Your task to perform on an android device: toggle priority inbox in the gmail app Image 0: 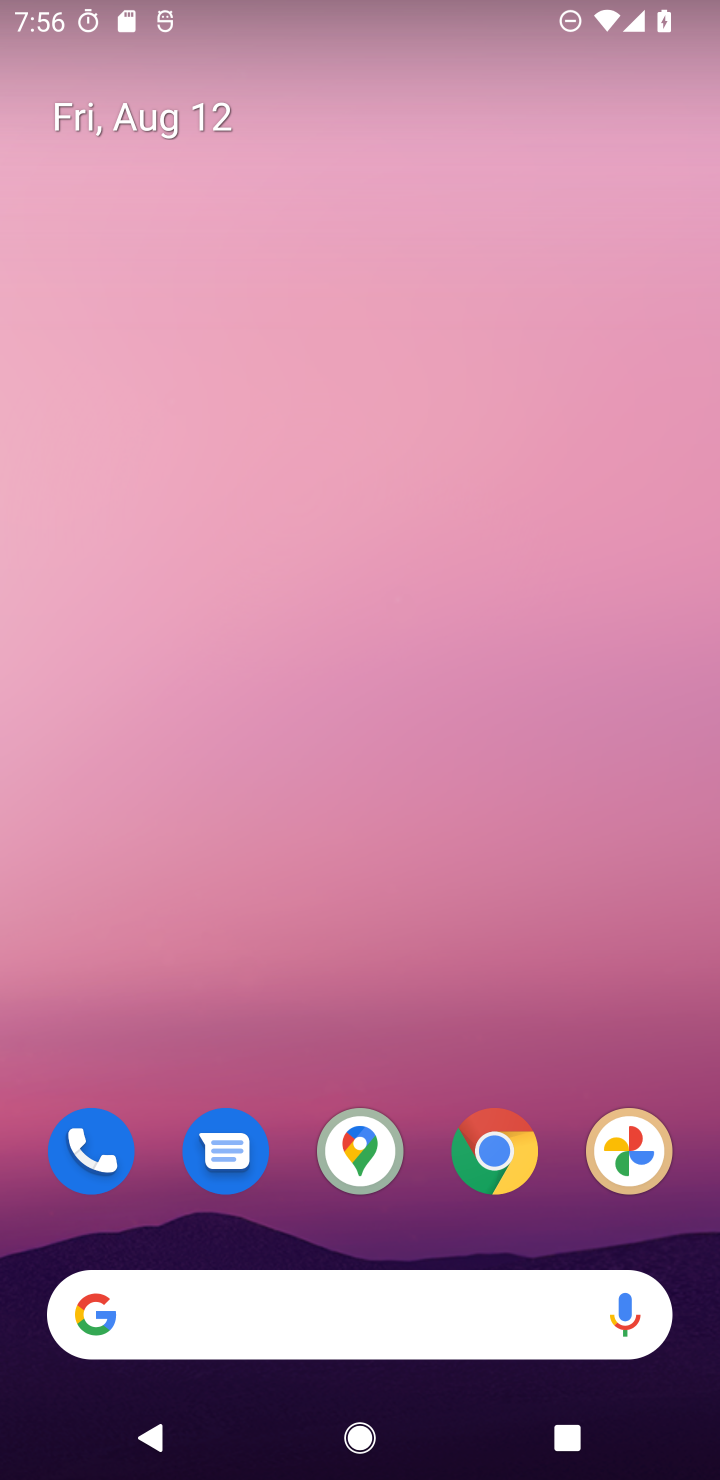
Step 0: drag from (429, 977) to (434, 55)
Your task to perform on an android device: toggle priority inbox in the gmail app Image 1: 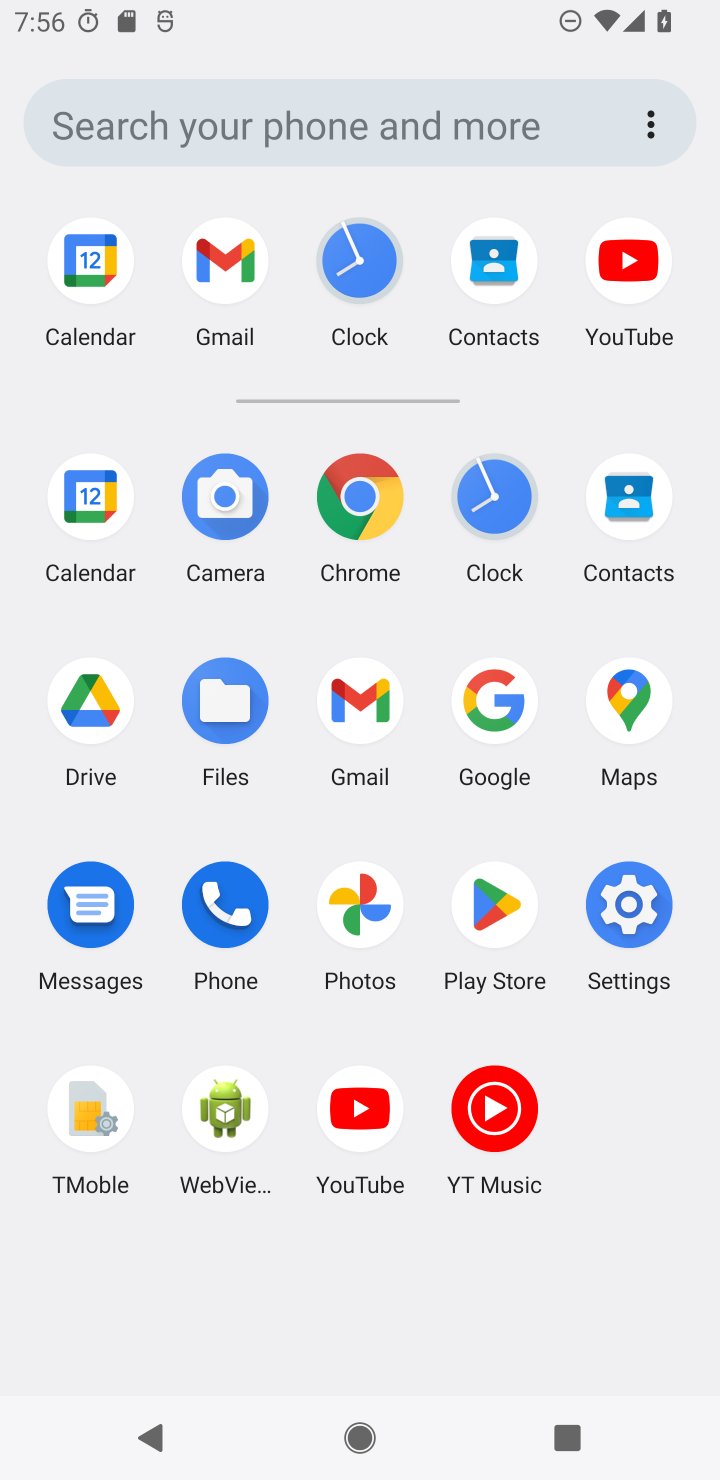
Step 1: click (360, 689)
Your task to perform on an android device: toggle priority inbox in the gmail app Image 2: 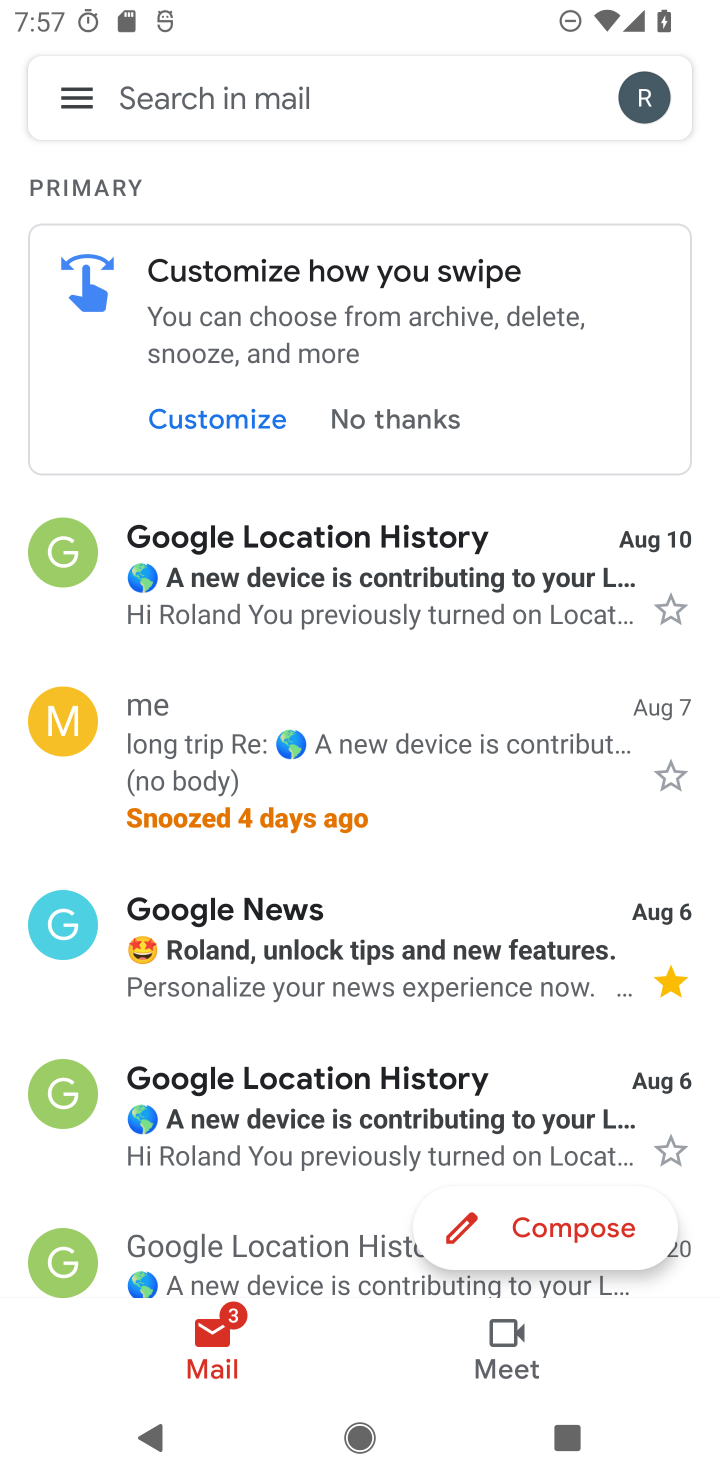
Step 2: click (68, 92)
Your task to perform on an android device: toggle priority inbox in the gmail app Image 3: 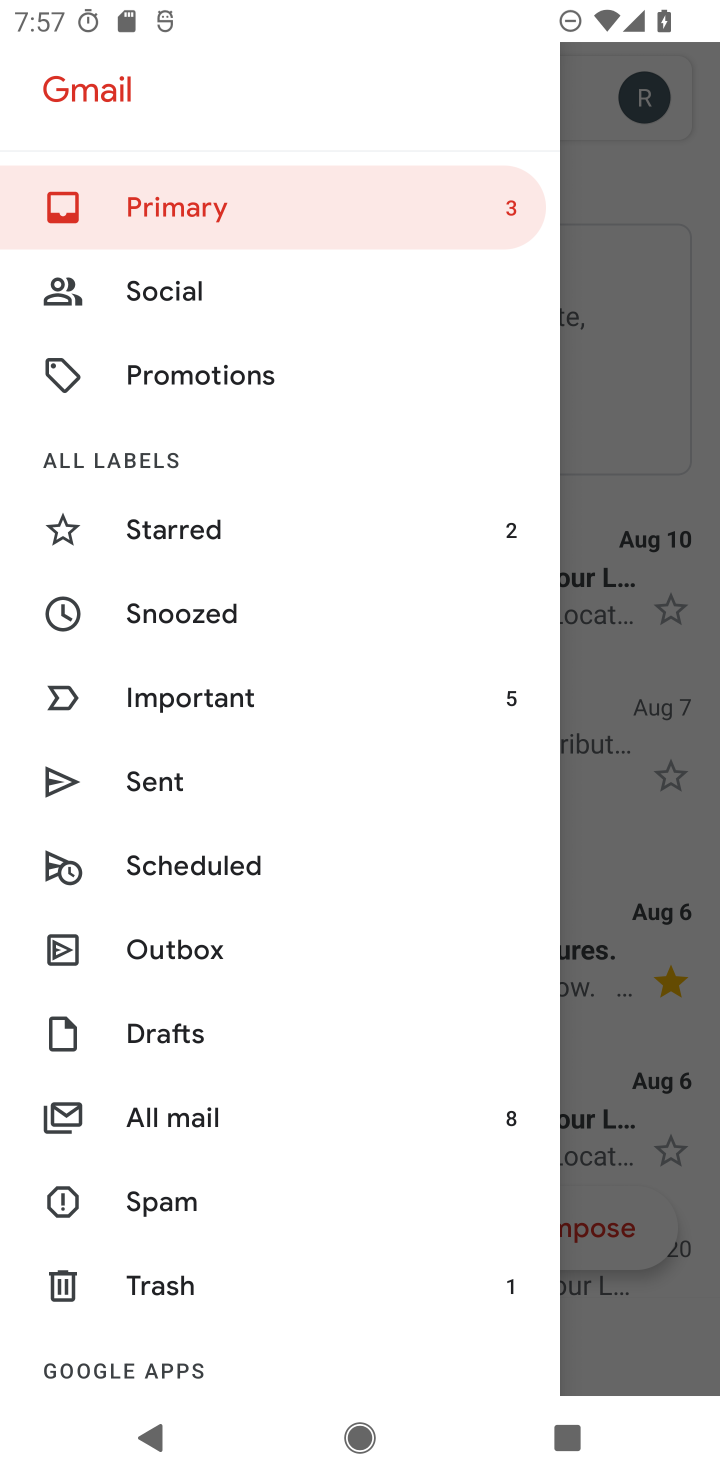
Step 3: drag from (307, 1183) to (305, 170)
Your task to perform on an android device: toggle priority inbox in the gmail app Image 4: 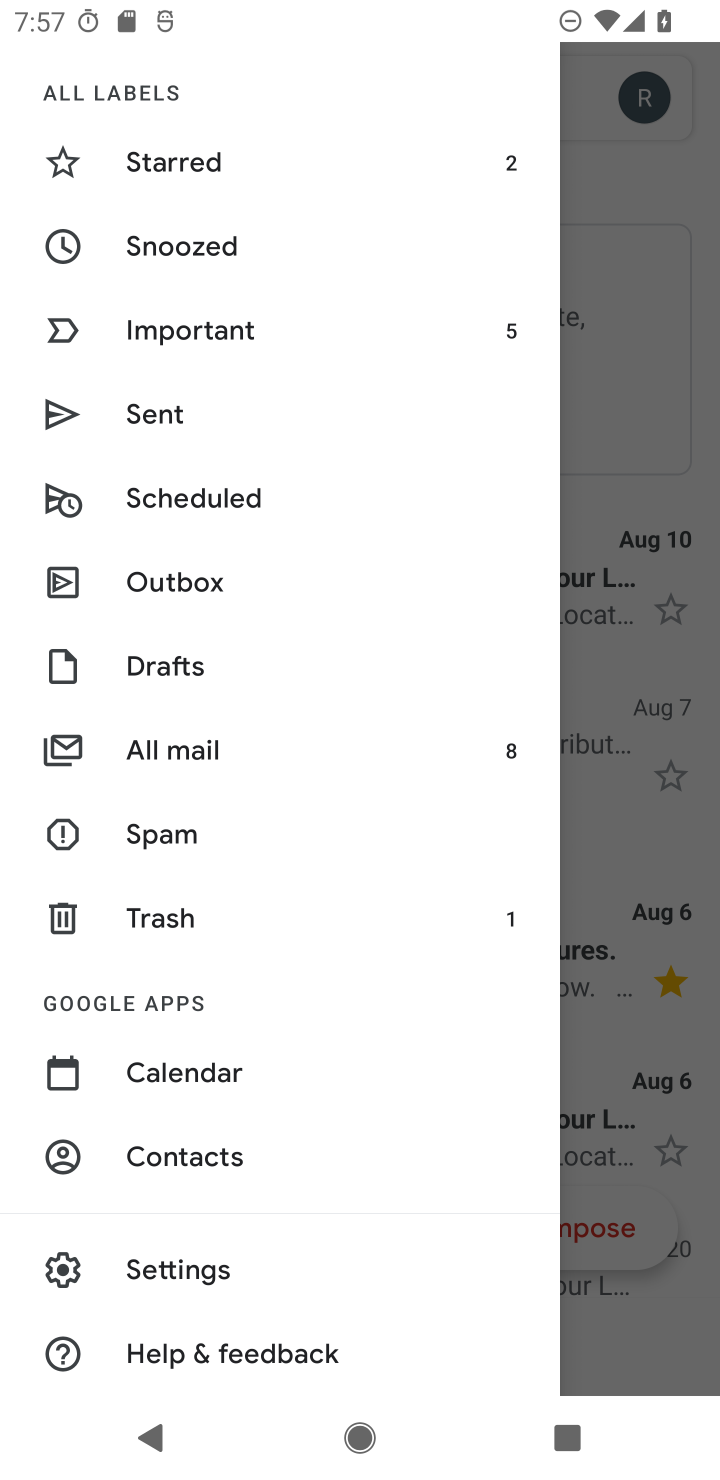
Step 4: click (180, 1258)
Your task to perform on an android device: toggle priority inbox in the gmail app Image 5: 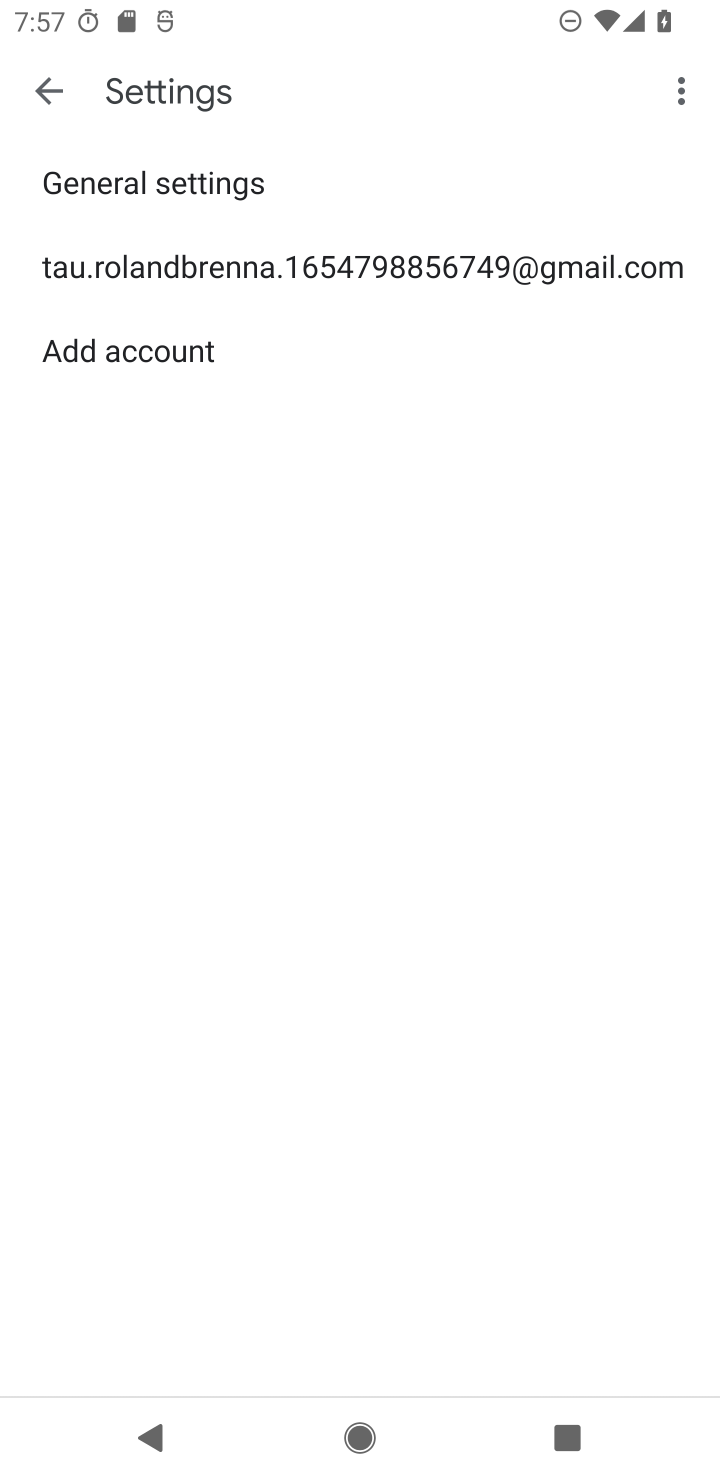
Step 5: click (204, 272)
Your task to perform on an android device: toggle priority inbox in the gmail app Image 6: 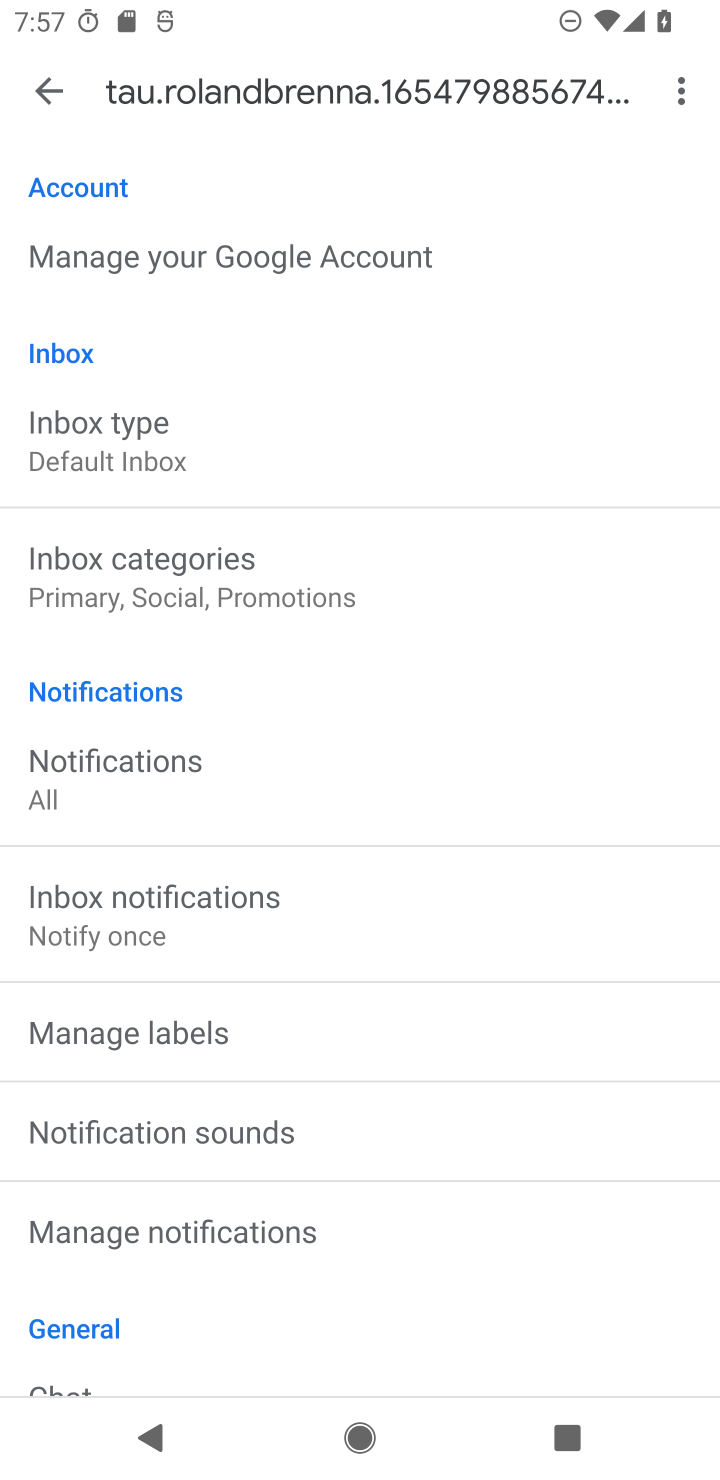
Step 6: click (122, 444)
Your task to perform on an android device: toggle priority inbox in the gmail app Image 7: 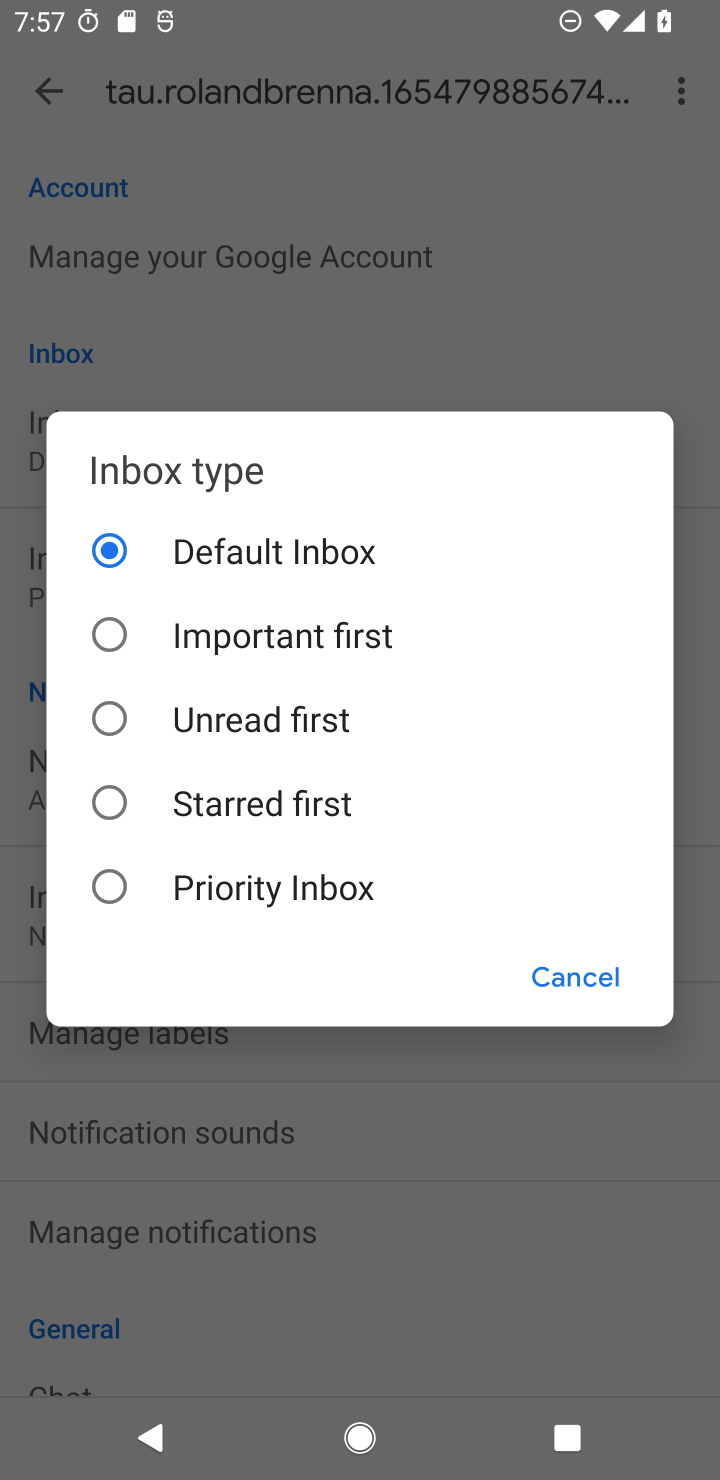
Step 7: click (247, 879)
Your task to perform on an android device: toggle priority inbox in the gmail app Image 8: 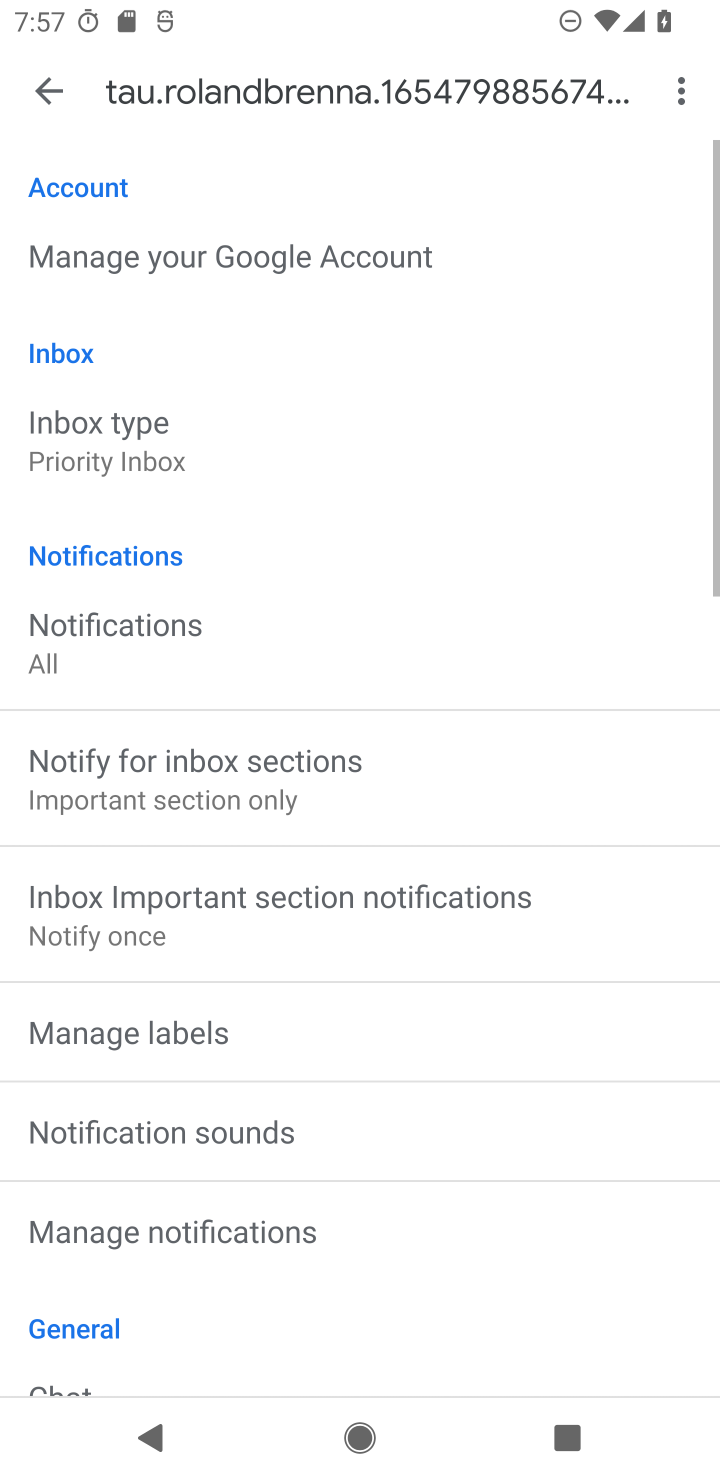
Step 8: task complete